Your task to perform on an android device: turn off translation in the chrome app Image 0: 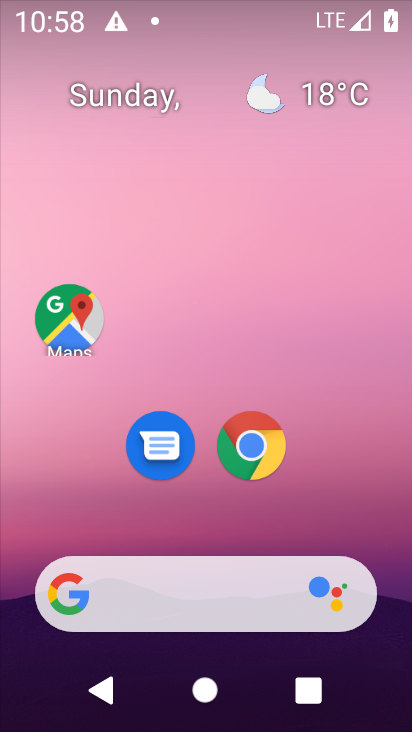
Step 0: click (272, 459)
Your task to perform on an android device: turn off translation in the chrome app Image 1: 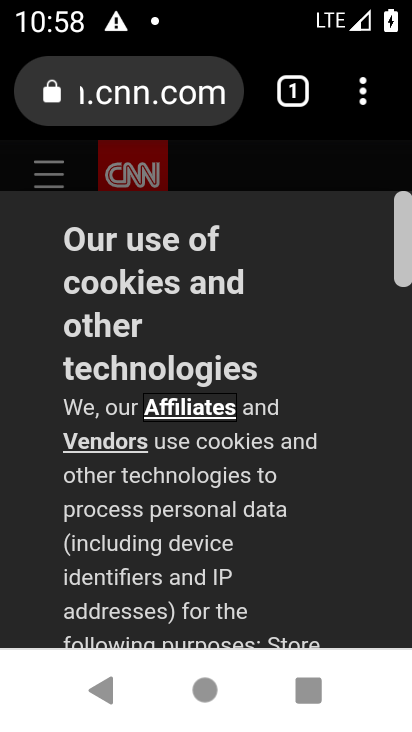
Step 1: drag from (360, 89) to (118, 477)
Your task to perform on an android device: turn off translation in the chrome app Image 2: 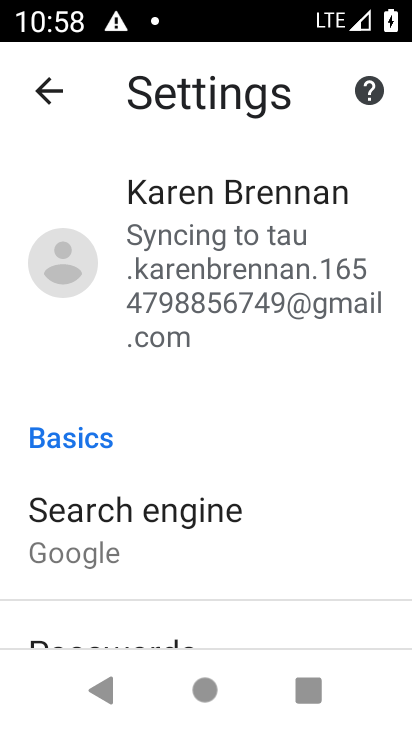
Step 2: drag from (233, 596) to (144, 25)
Your task to perform on an android device: turn off translation in the chrome app Image 3: 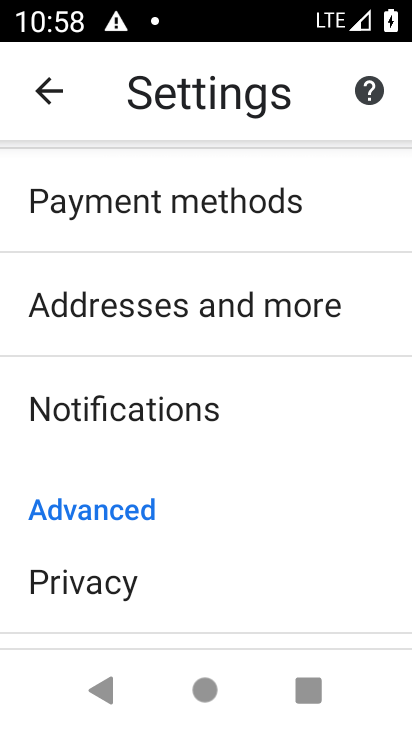
Step 3: drag from (218, 633) to (172, 150)
Your task to perform on an android device: turn off translation in the chrome app Image 4: 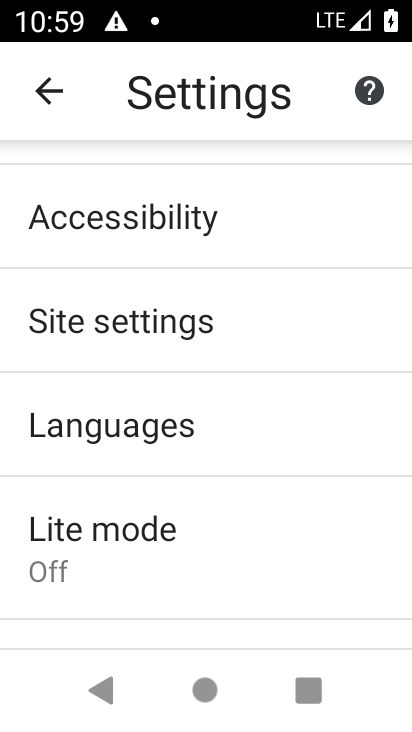
Step 4: click (133, 406)
Your task to perform on an android device: turn off translation in the chrome app Image 5: 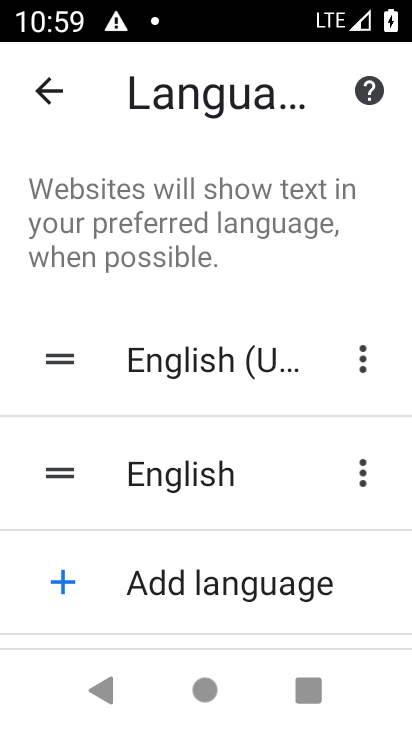
Step 5: drag from (201, 78) to (201, 6)
Your task to perform on an android device: turn off translation in the chrome app Image 6: 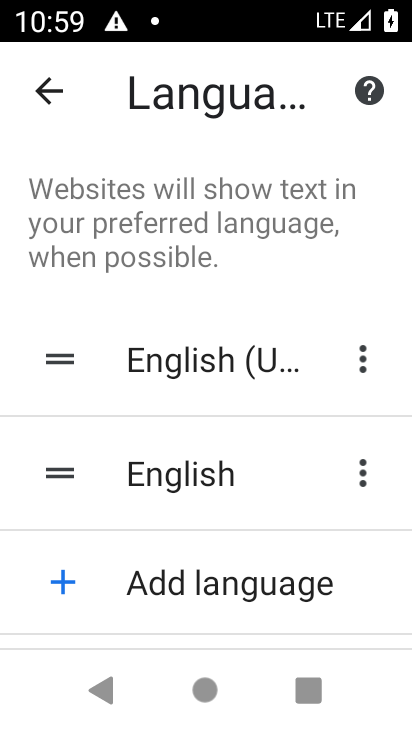
Step 6: drag from (256, 447) to (257, 141)
Your task to perform on an android device: turn off translation in the chrome app Image 7: 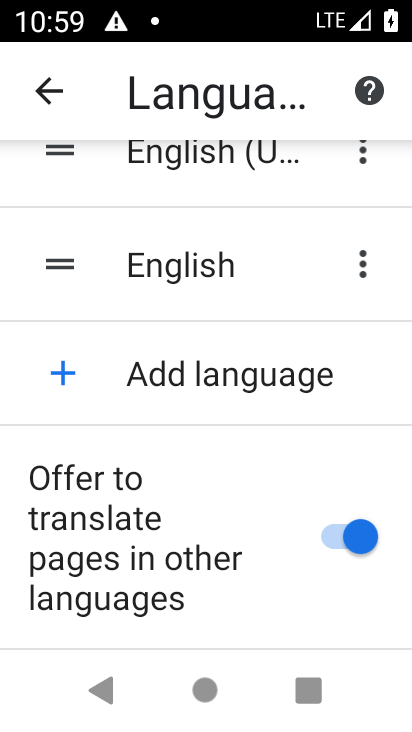
Step 7: click (341, 547)
Your task to perform on an android device: turn off translation in the chrome app Image 8: 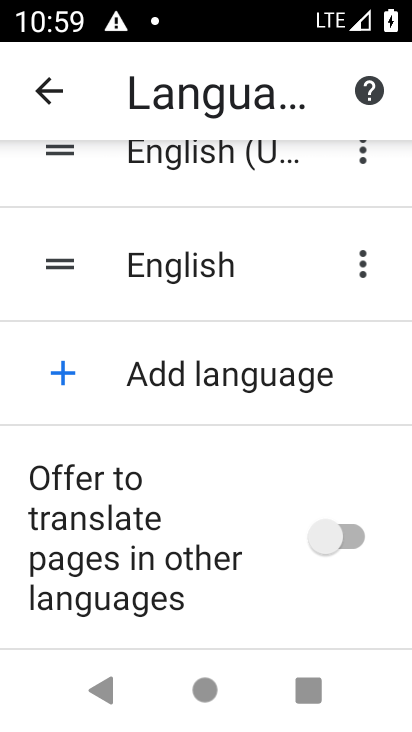
Step 8: task complete